Your task to perform on an android device: set the timer Image 0: 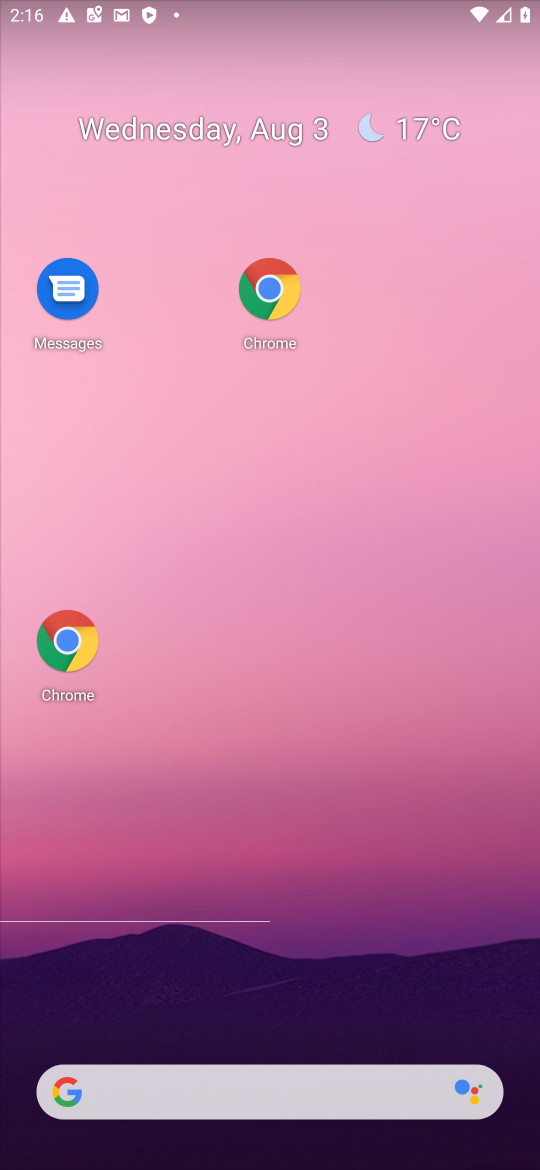
Step 0: drag from (307, 978) to (289, 43)
Your task to perform on an android device: set the timer Image 1: 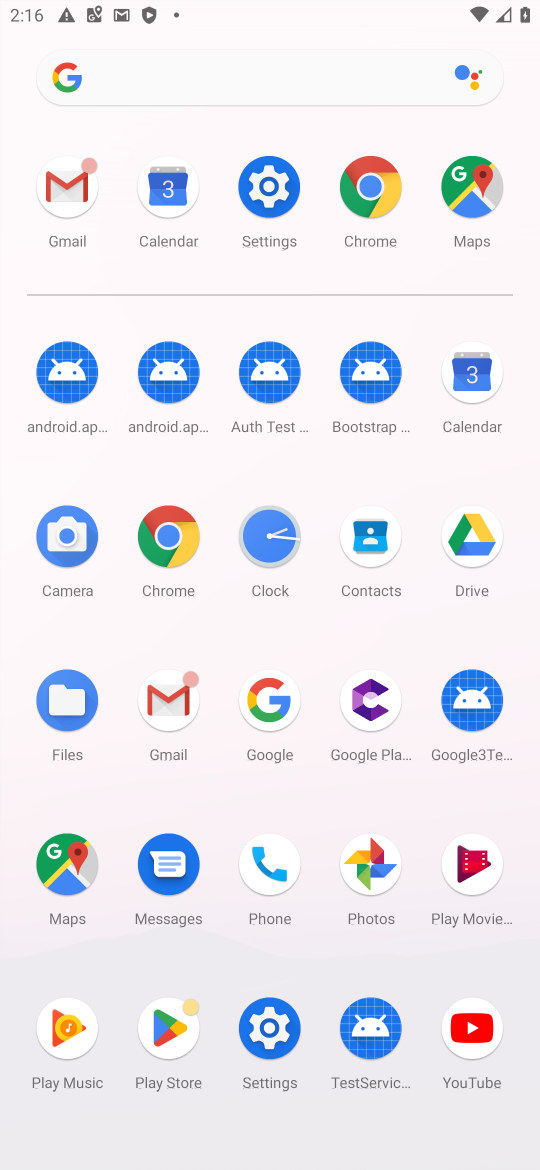
Step 1: click (269, 546)
Your task to perform on an android device: set the timer Image 2: 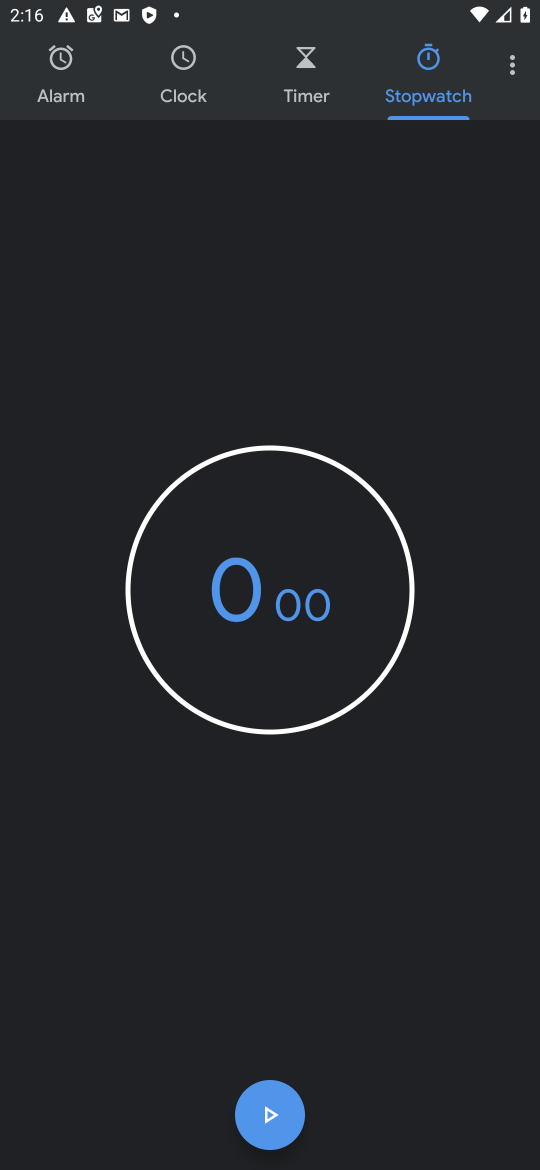
Step 2: click (327, 89)
Your task to perform on an android device: set the timer Image 3: 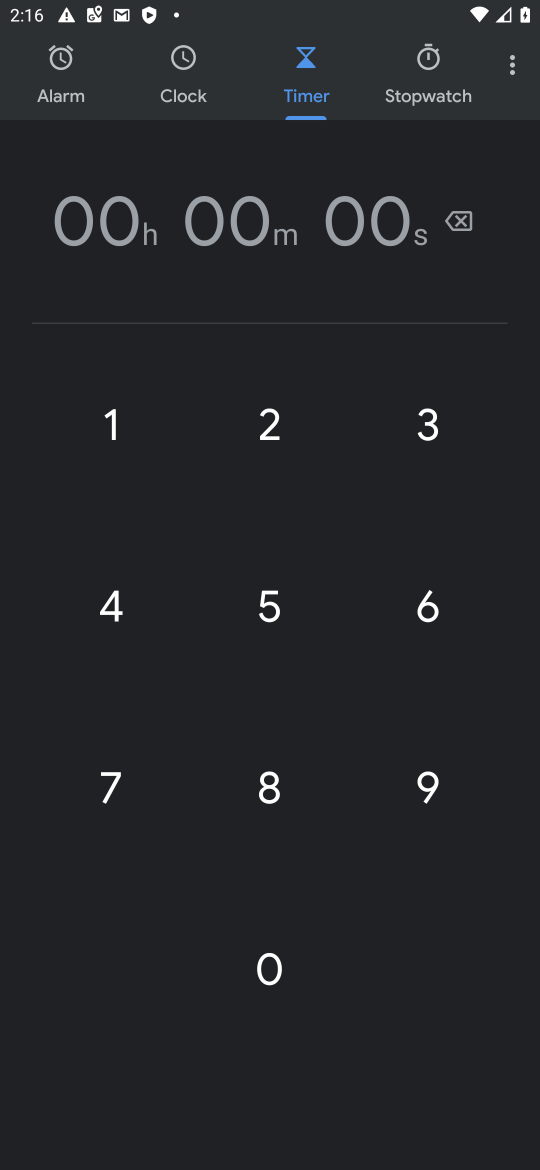
Step 3: task complete